Your task to perform on an android device: toggle airplane mode Image 0: 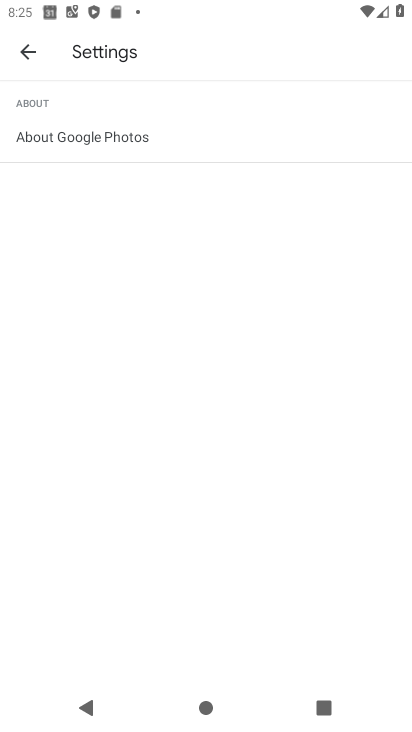
Step 0: press home button
Your task to perform on an android device: toggle airplane mode Image 1: 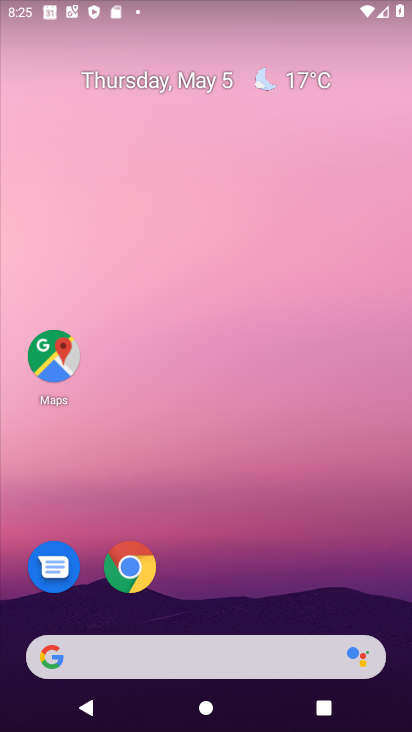
Step 1: drag from (267, 559) to (352, 75)
Your task to perform on an android device: toggle airplane mode Image 2: 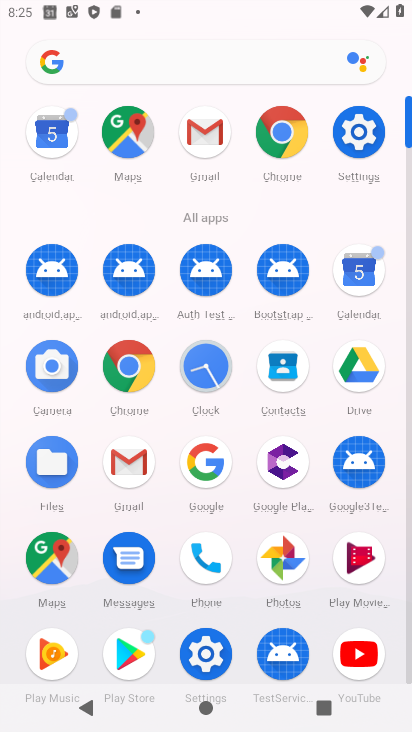
Step 2: click (355, 137)
Your task to perform on an android device: toggle airplane mode Image 3: 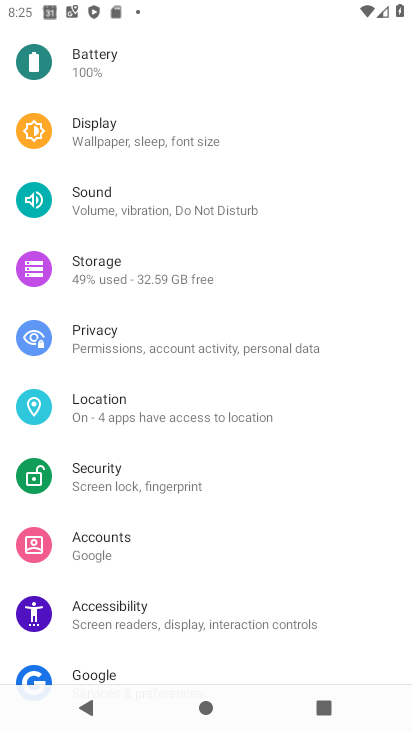
Step 3: drag from (259, 192) to (260, 579)
Your task to perform on an android device: toggle airplane mode Image 4: 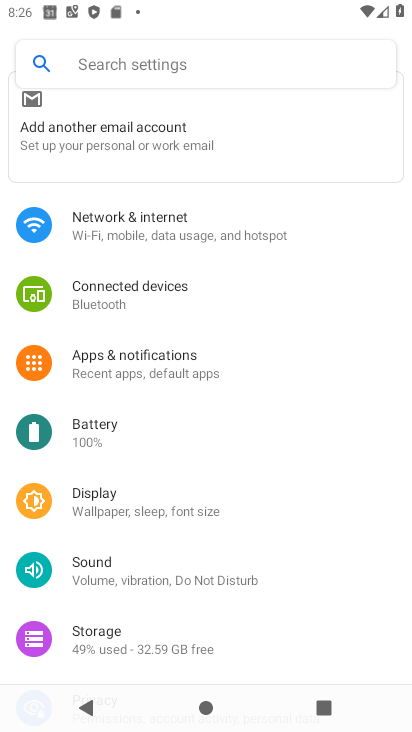
Step 4: click (234, 221)
Your task to perform on an android device: toggle airplane mode Image 5: 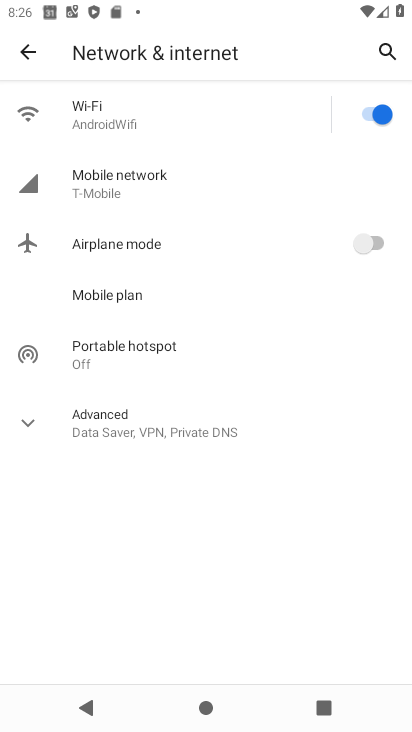
Step 5: click (373, 239)
Your task to perform on an android device: toggle airplane mode Image 6: 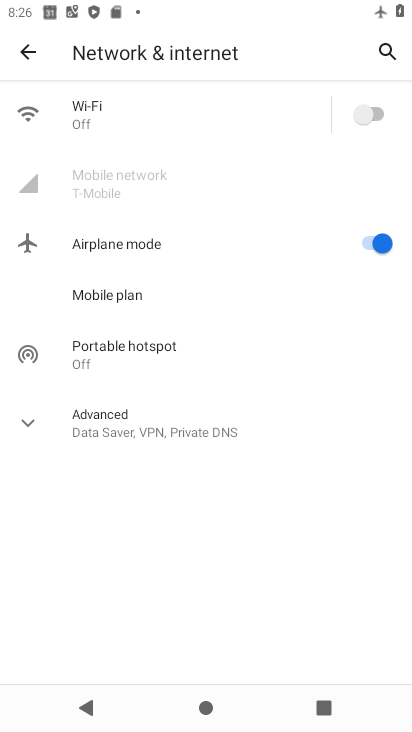
Step 6: task complete